Your task to perform on an android device: Open the stopwatch Image 0: 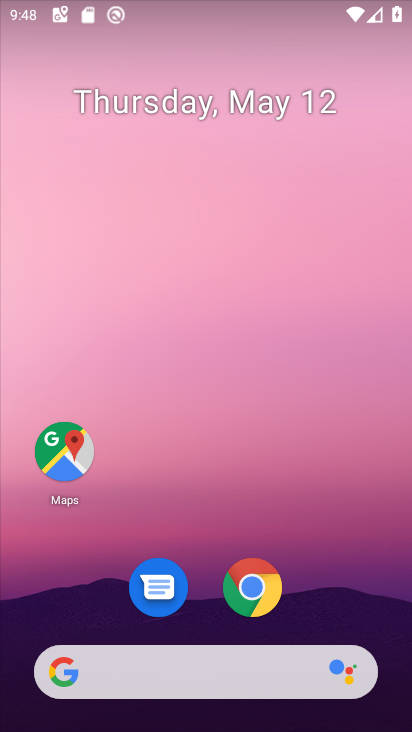
Step 0: drag from (353, 618) to (290, 310)
Your task to perform on an android device: Open the stopwatch Image 1: 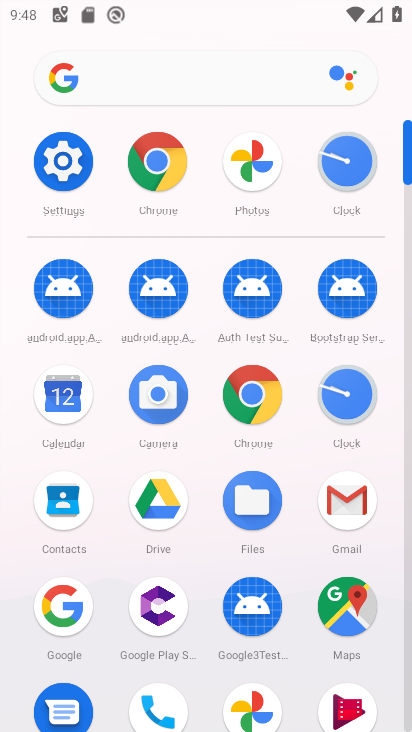
Step 1: click (355, 163)
Your task to perform on an android device: Open the stopwatch Image 2: 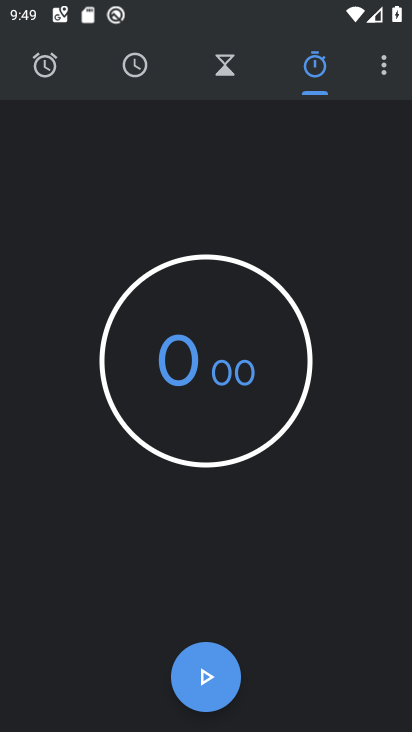
Step 2: task complete